Your task to perform on an android device: check the backup settings in the google photos Image 0: 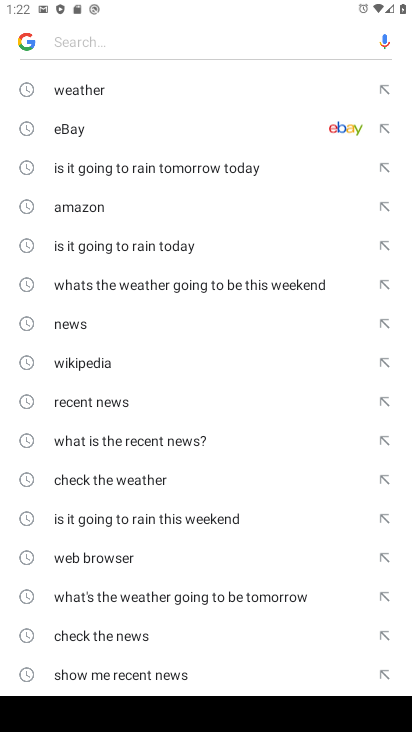
Step 0: press home button
Your task to perform on an android device: check the backup settings in the google photos Image 1: 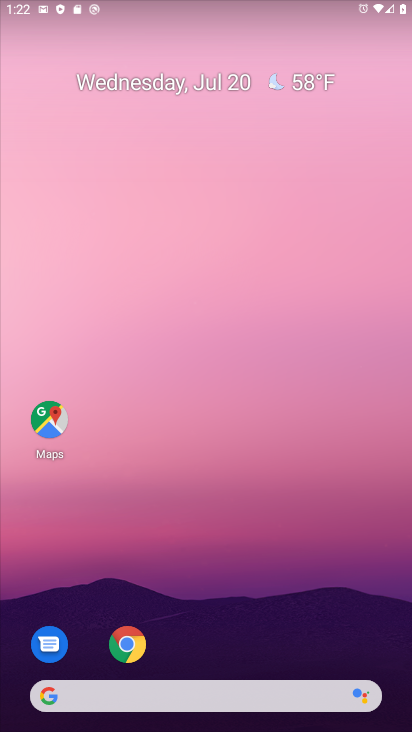
Step 1: drag from (204, 625) to (182, 84)
Your task to perform on an android device: check the backup settings in the google photos Image 2: 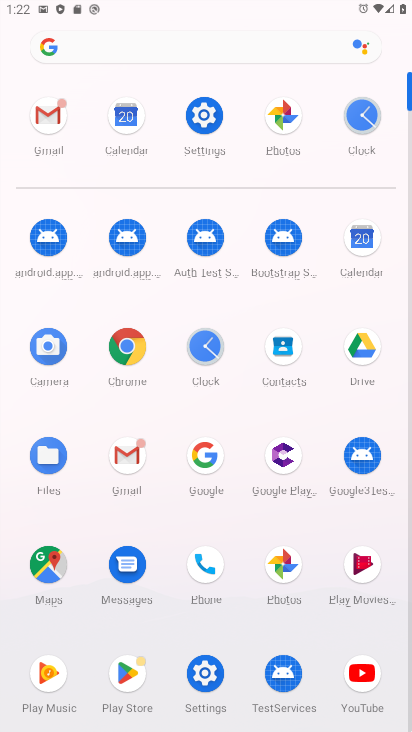
Step 2: click (283, 564)
Your task to perform on an android device: check the backup settings in the google photos Image 3: 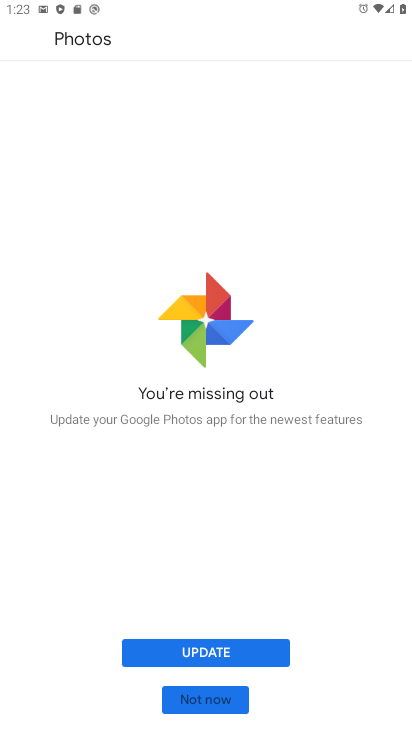
Step 3: click (195, 654)
Your task to perform on an android device: check the backup settings in the google photos Image 4: 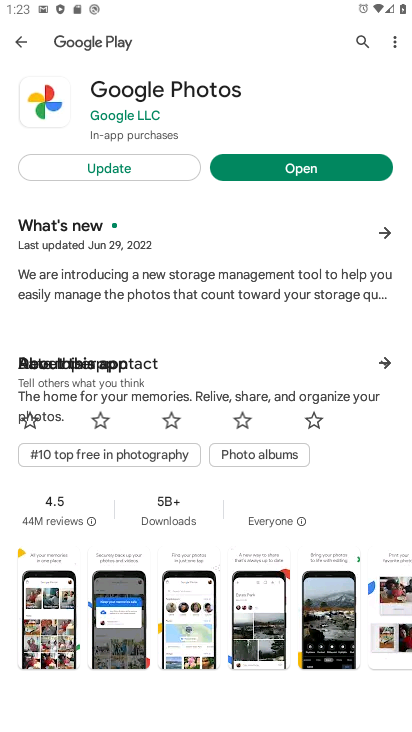
Step 4: click (121, 169)
Your task to perform on an android device: check the backup settings in the google photos Image 5: 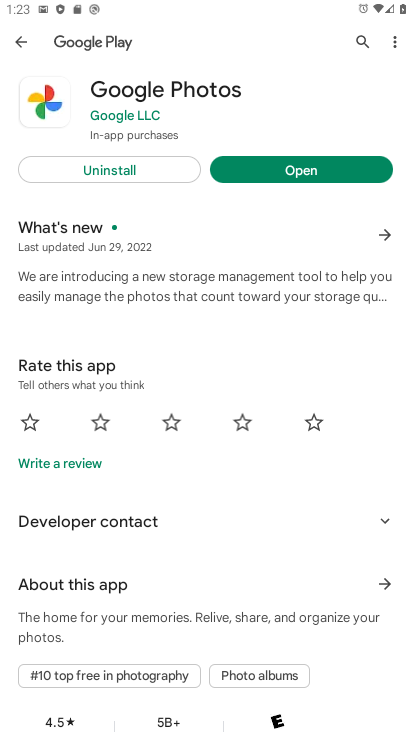
Step 5: click (301, 178)
Your task to perform on an android device: check the backup settings in the google photos Image 6: 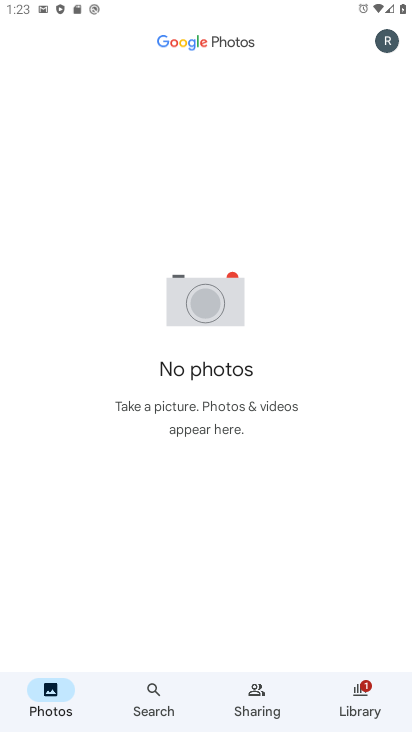
Step 6: click (390, 42)
Your task to perform on an android device: check the backup settings in the google photos Image 7: 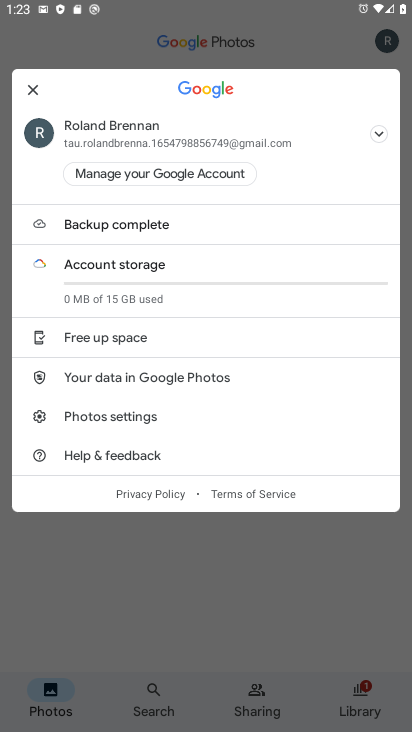
Step 7: click (103, 412)
Your task to perform on an android device: check the backup settings in the google photos Image 8: 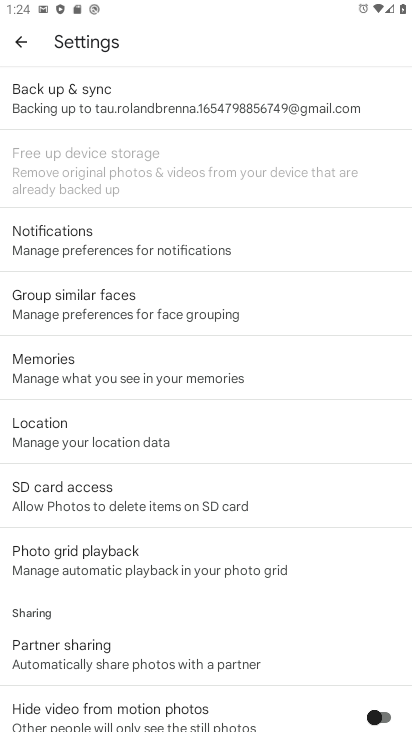
Step 8: click (92, 89)
Your task to perform on an android device: check the backup settings in the google photos Image 9: 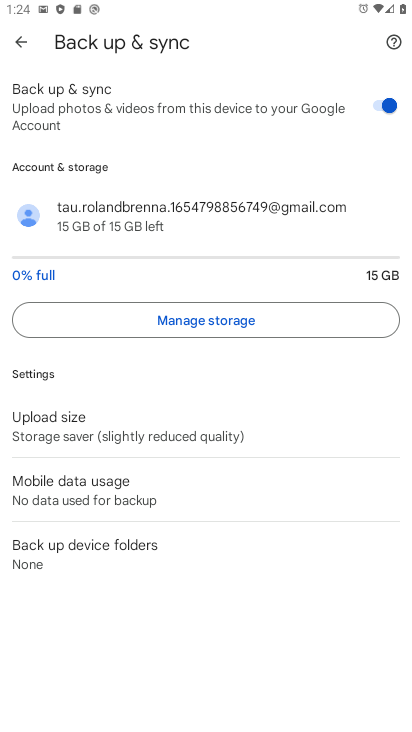
Step 9: task complete